Your task to perform on an android device: Open Google Chrome Image 0: 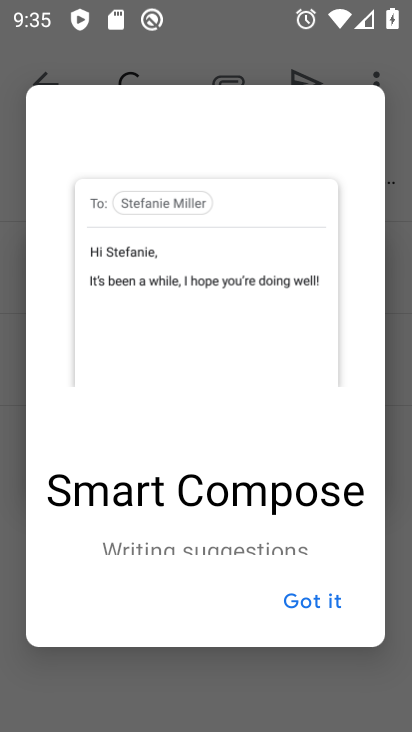
Step 0: press home button
Your task to perform on an android device: Open Google Chrome Image 1: 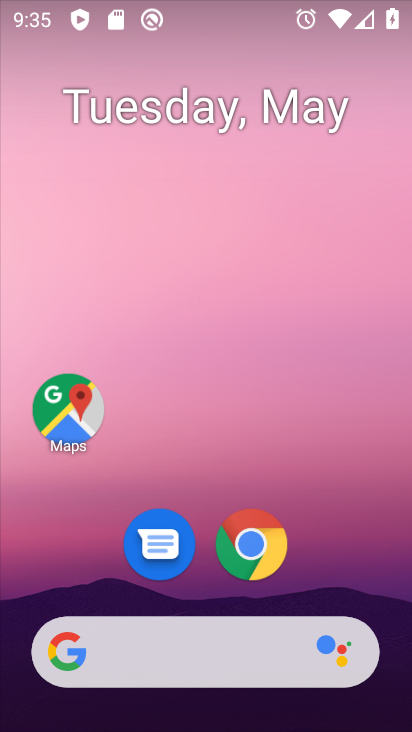
Step 1: drag from (377, 550) to (332, 220)
Your task to perform on an android device: Open Google Chrome Image 2: 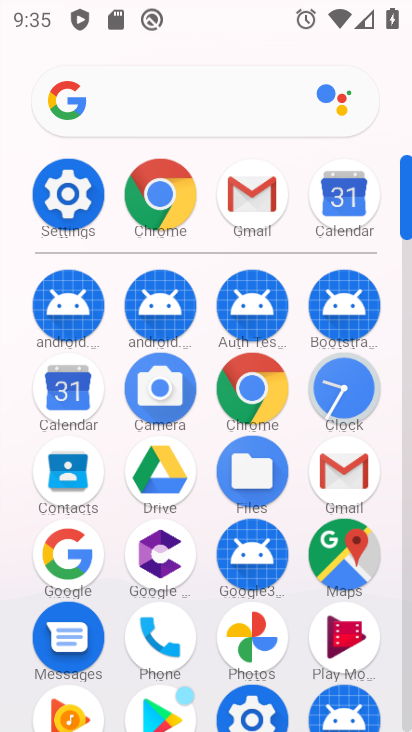
Step 2: click (244, 414)
Your task to perform on an android device: Open Google Chrome Image 3: 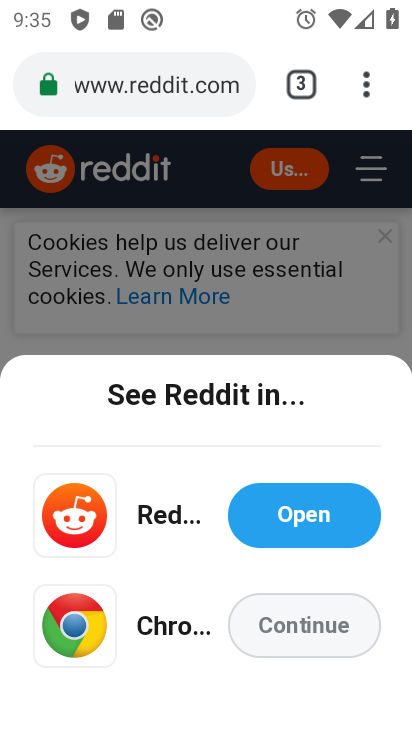
Step 3: task complete